Your task to perform on an android device: see tabs open on other devices in the chrome app Image 0: 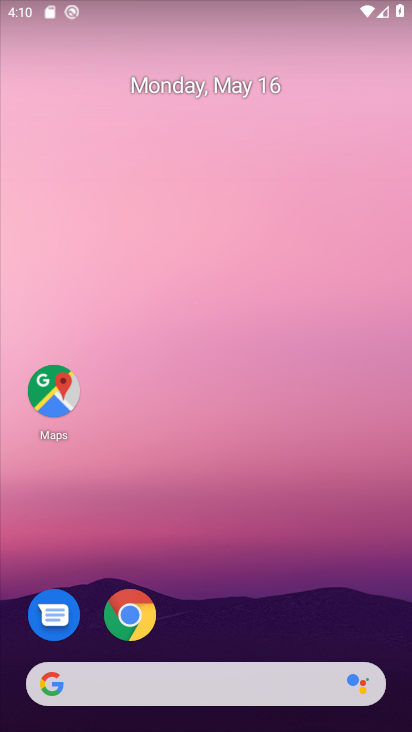
Step 0: drag from (220, 607) to (279, 67)
Your task to perform on an android device: see tabs open on other devices in the chrome app Image 1: 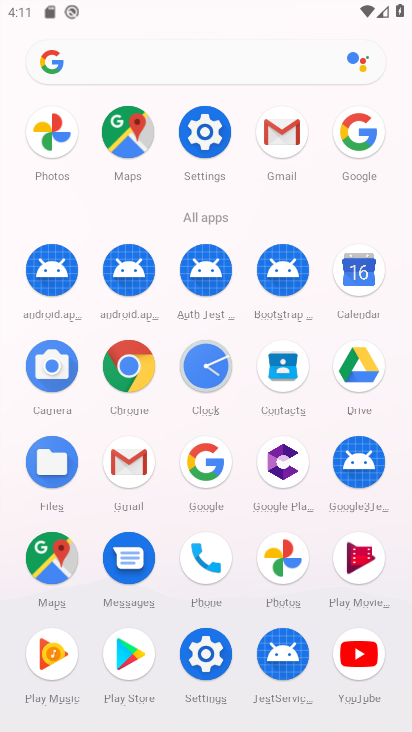
Step 1: click (134, 391)
Your task to perform on an android device: see tabs open on other devices in the chrome app Image 2: 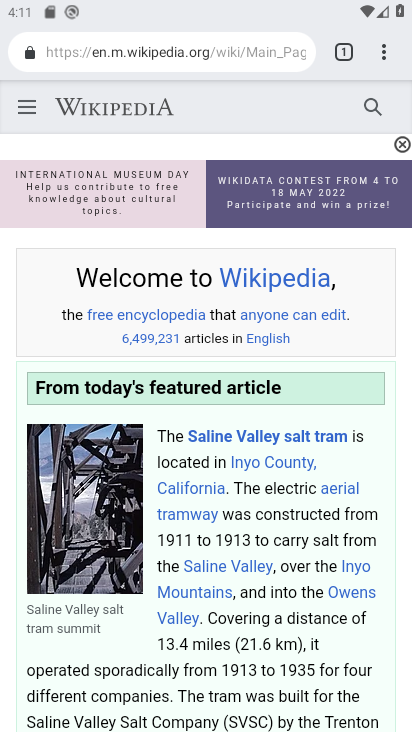
Step 2: click (386, 52)
Your task to perform on an android device: see tabs open on other devices in the chrome app Image 3: 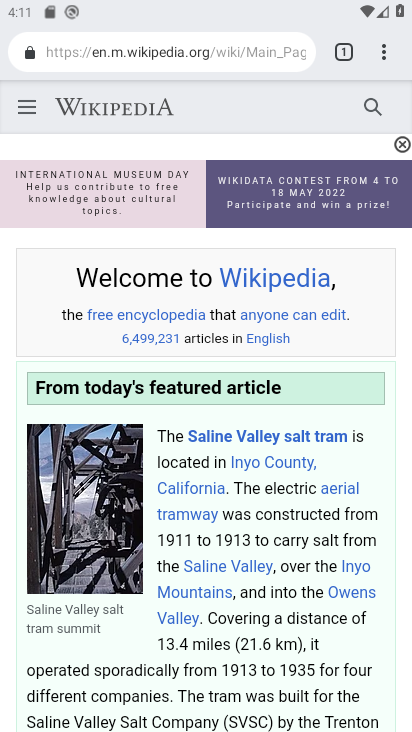
Step 3: click (381, 47)
Your task to perform on an android device: see tabs open on other devices in the chrome app Image 4: 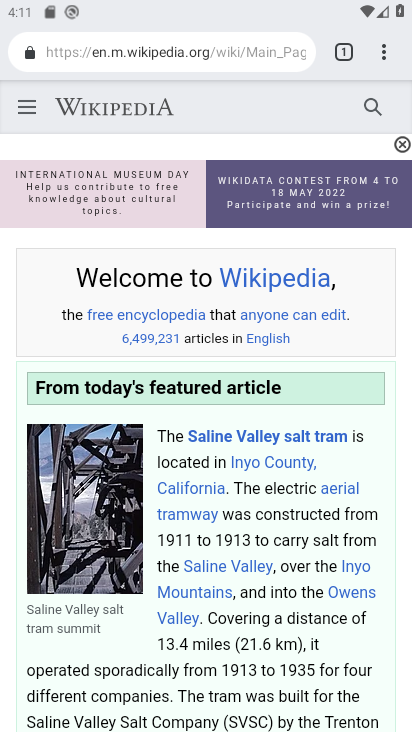
Step 4: click (386, 53)
Your task to perform on an android device: see tabs open on other devices in the chrome app Image 5: 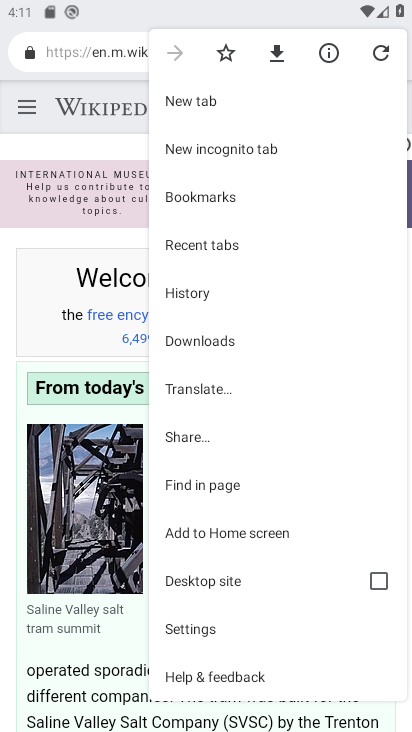
Step 5: click (218, 248)
Your task to perform on an android device: see tabs open on other devices in the chrome app Image 6: 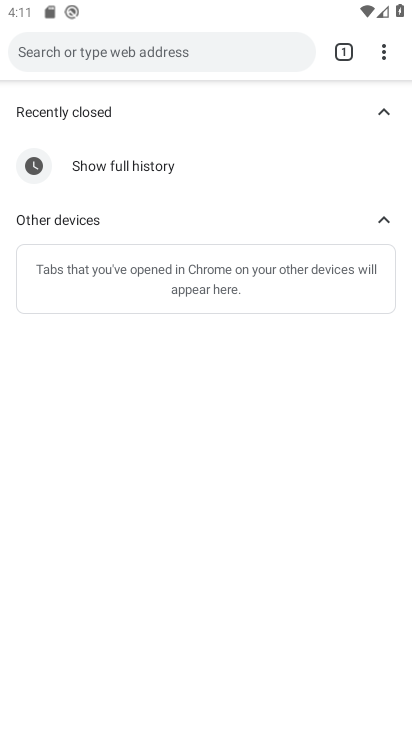
Step 6: task complete